Your task to perform on an android device: See recent photos Image 0: 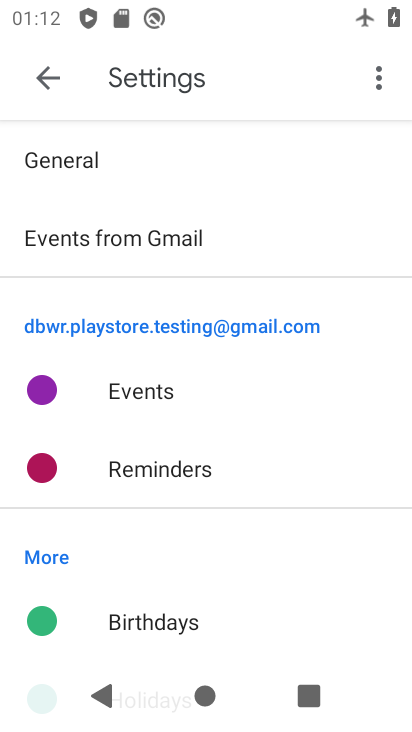
Step 0: press back button
Your task to perform on an android device: See recent photos Image 1: 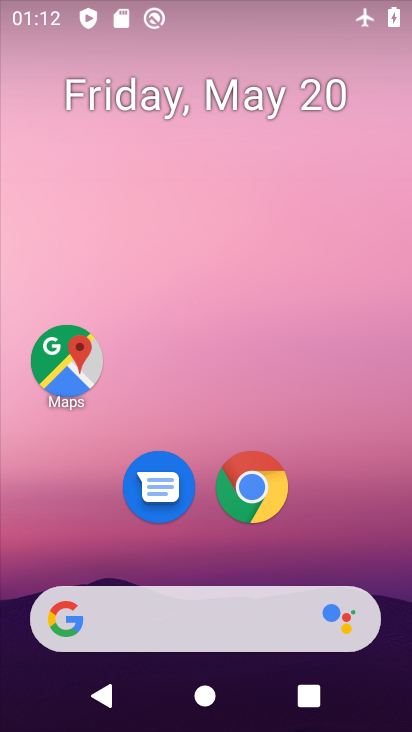
Step 1: drag from (329, 551) to (252, 23)
Your task to perform on an android device: See recent photos Image 2: 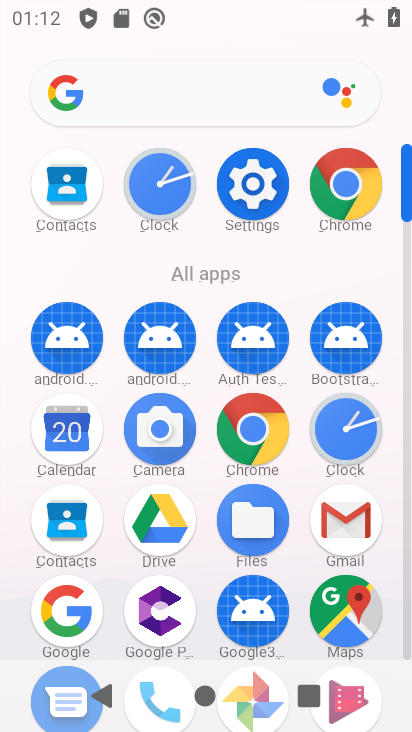
Step 2: drag from (6, 568) to (6, 193)
Your task to perform on an android device: See recent photos Image 3: 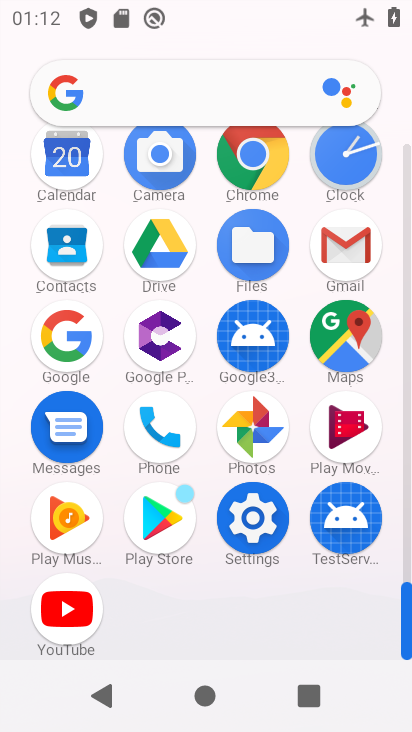
Step 3: click (257, 421)
Your task to perform on an android device: See recent photos Image 4: 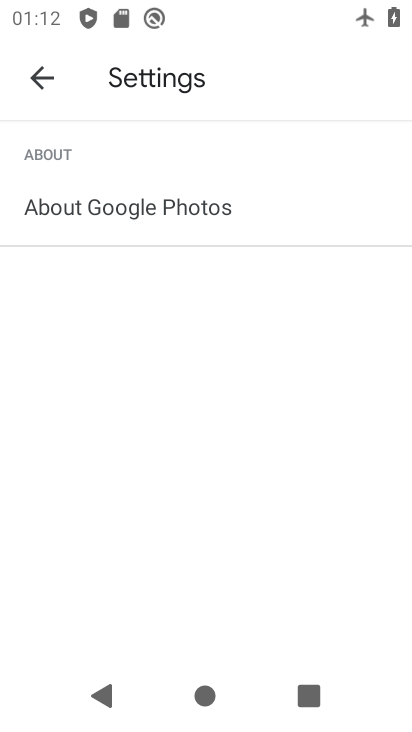
Step 4: click (34, 75)
Your task to perform on an android device: See recent photos Image 5: 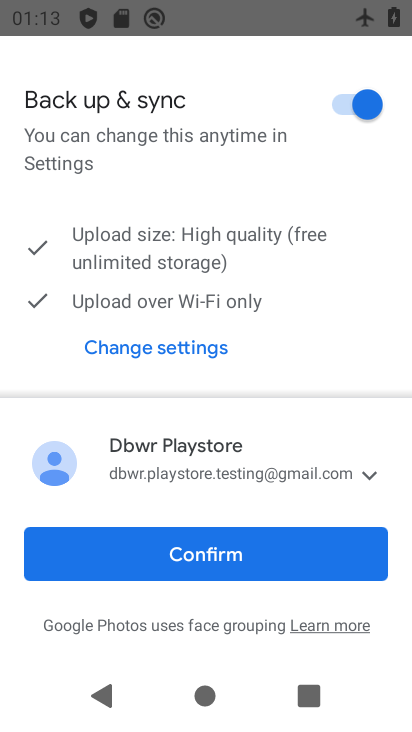
Step 5: click (220, 554)
Your task to perform on an android device: See recent photos Image 6: 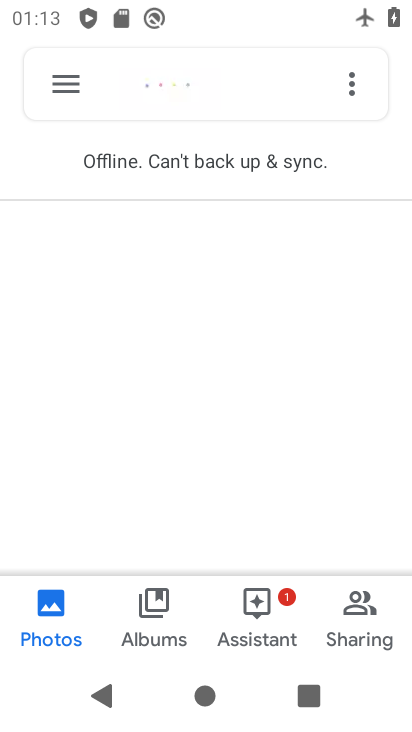
Step 6: click (250, 610)
Your task to perform on an android device: See recent photos Image 7: 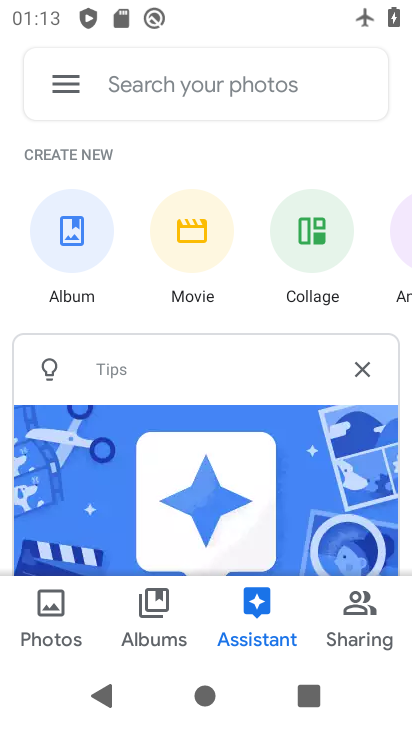
Step 7: click (51, 613)
Your task to perform on an android device: See recent photos Image 8: 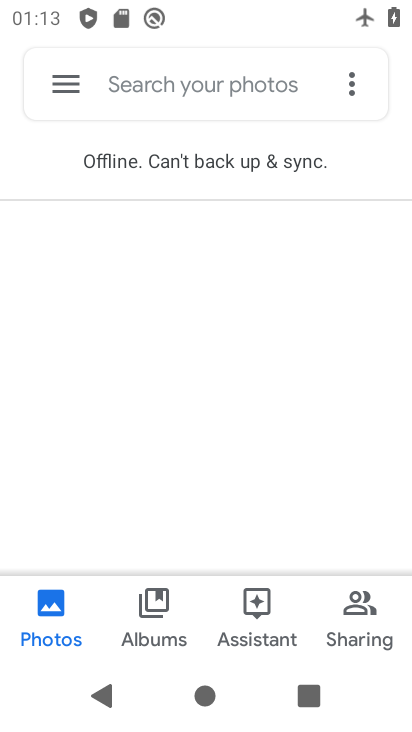
Step 8: task complete